Your task to perform on an android device: delete the emails in spam in the gmail app Image 0: 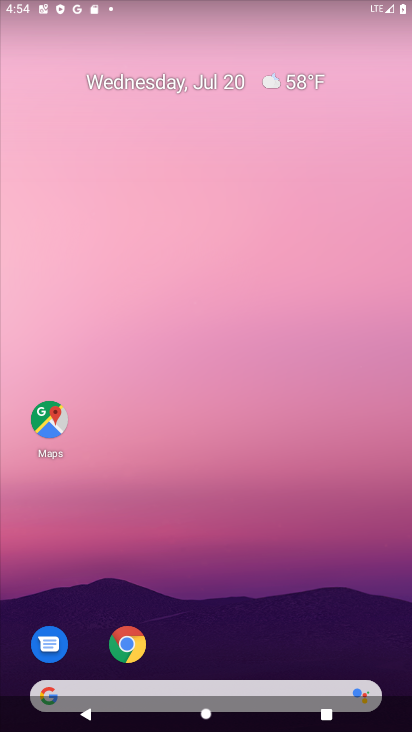
Step 0: press home button
Your task to perform on an android device: delete the emails in spam in the gmail app Image 1: 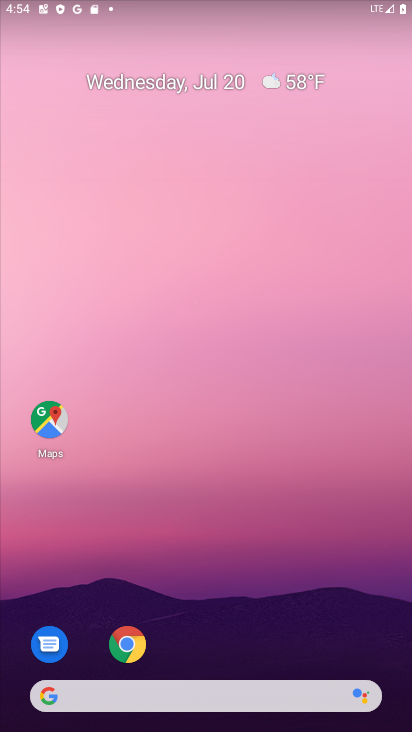
Step 1: drag from (228, 664) to (212, 11)
Your task to perform on an android device: delete the emails in spam in the gmail app Image 2: 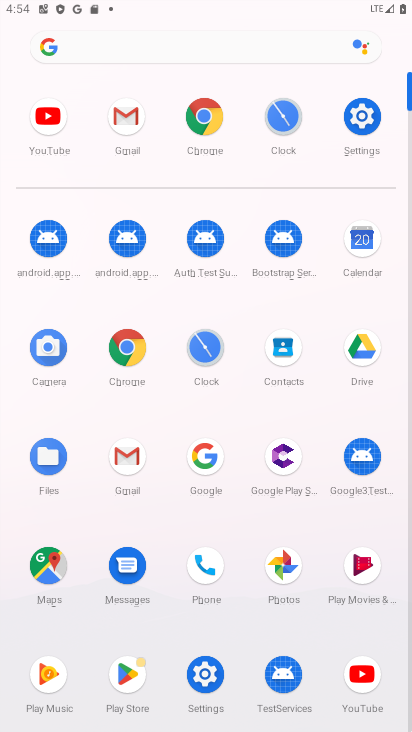
Step 2: click (120, 447)
Your task to perform on an android device: delete the emails in spam in the gmail app Image 3: 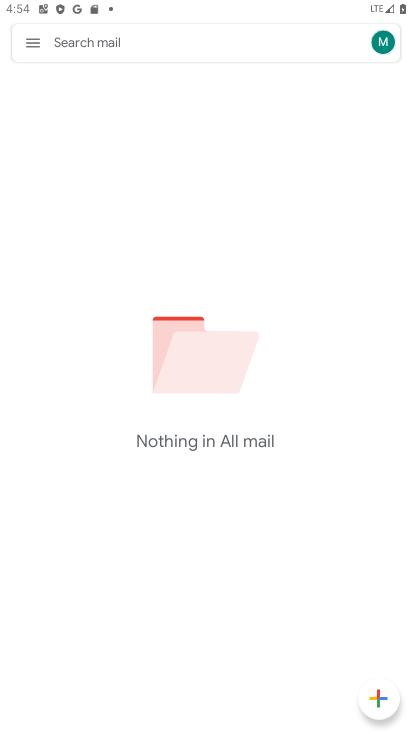
Step 3: click (30, 47)
Your task to perform on an android device: delete the emails in spam in the gmail app Image 4: 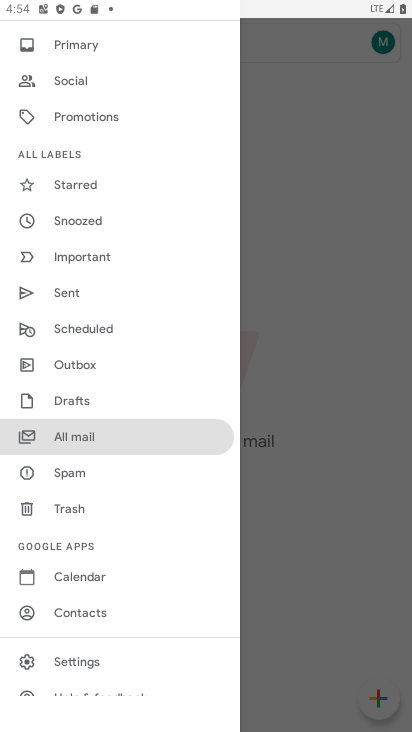
Step 4: click (71, 471)
Your task to perform on an android device: delete the emails in spam in the gmail app Image 5: 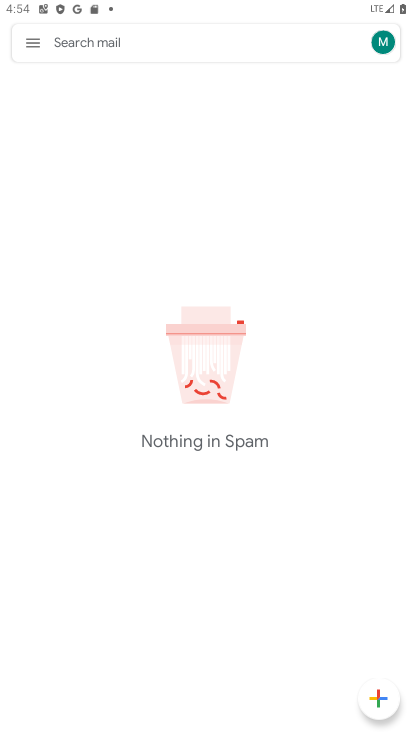
Step 5: task complete